Your task to perform on an android device: Open Google Chrome Image 0: 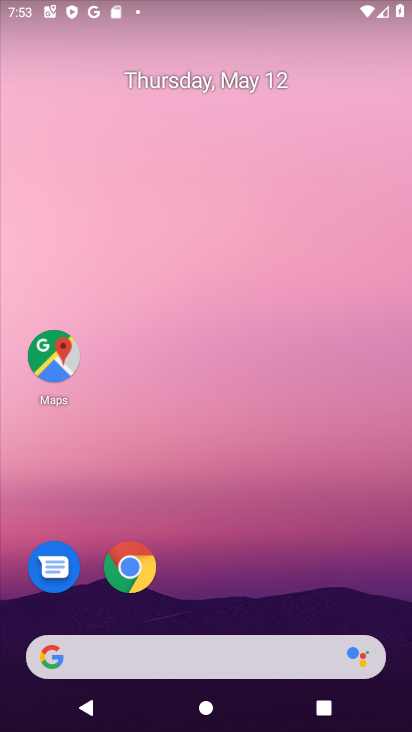
Step 0: drag from (247, 585) to (269, 97)
Your task to perform on an android device: Open Google Chrome Image 1: 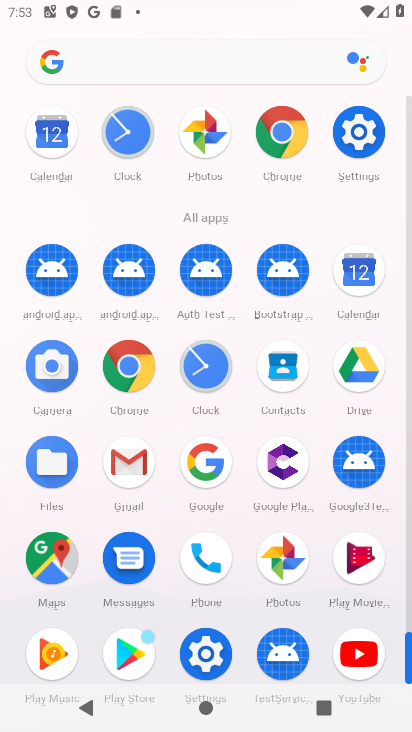
Step 1: click (288, 152)
Your task to perform on an android device: Open Google Chrome Image 2: 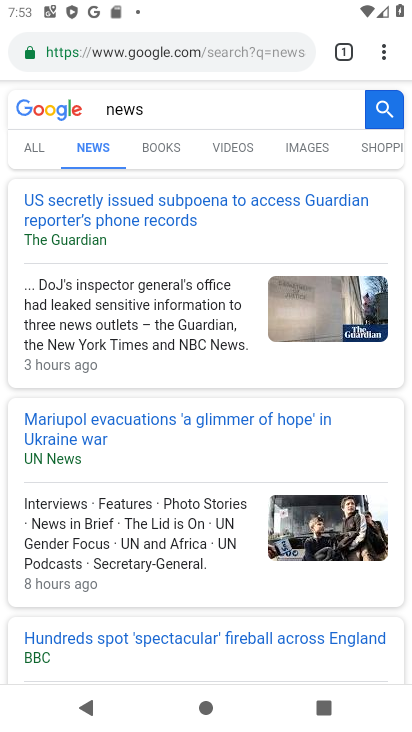
Step 2: click (380, 57)
Your task to perform on an android device: Open Google Chrome Image 3: 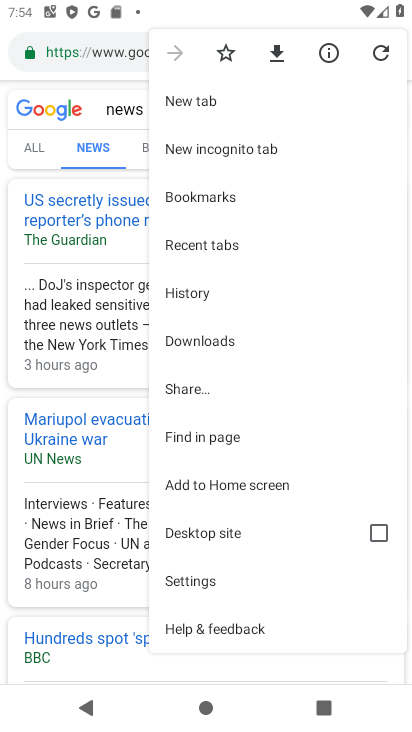
Step 3: task complete